Your task to perform on an android device: Go to network settings Image 0: 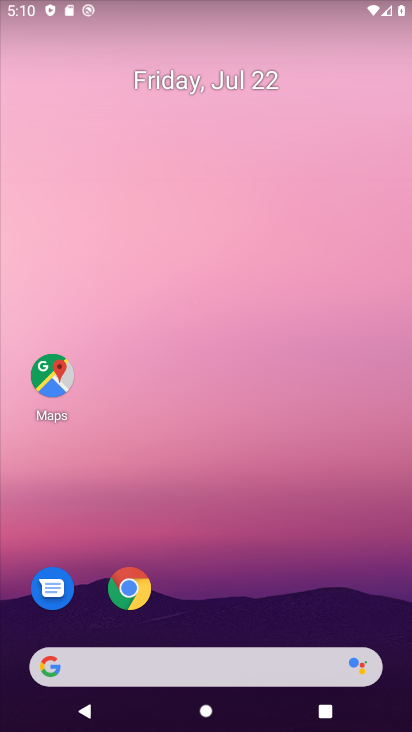
Step 0: drag from (226, 567) to (234, 265)
Your task to perform on an android device: Go to network settings Image 1: 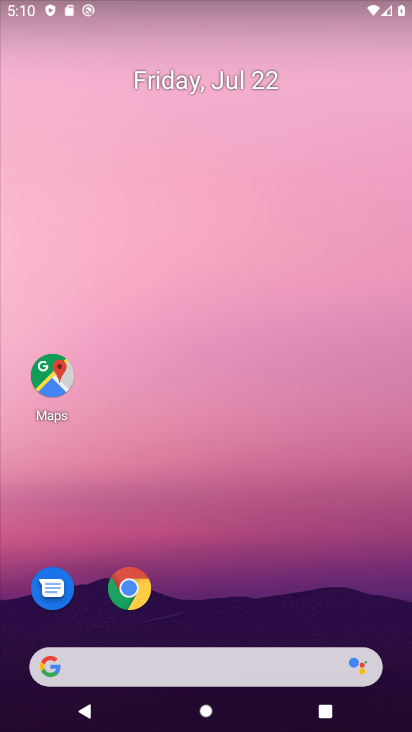
Step 1: drag from (133, 514) to (250, 46)
Your task to perform on an android device: Go to network settings Image 2: 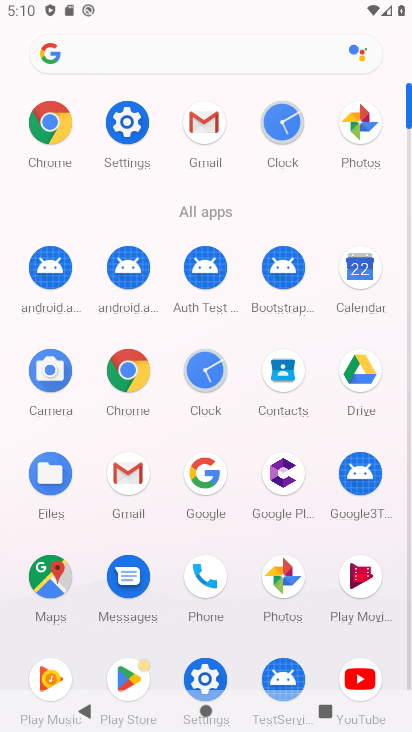
Step 2: click (123, 134)
Your task to perform on an android device: Go to network settings Image 3: 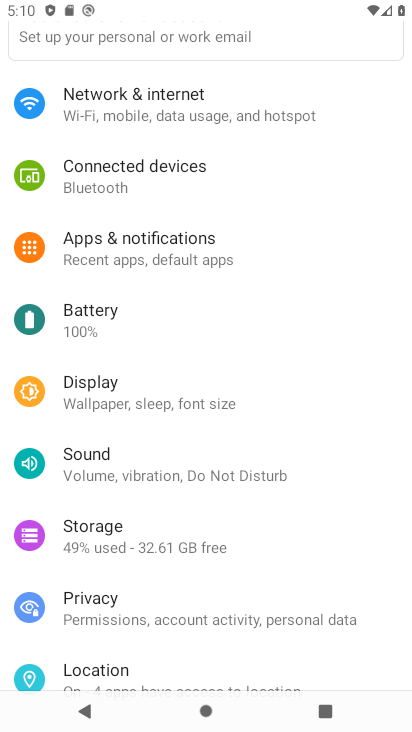
Step 3: click (153, 105)
Your task to perform on an android device: Go to network settings Image 4: 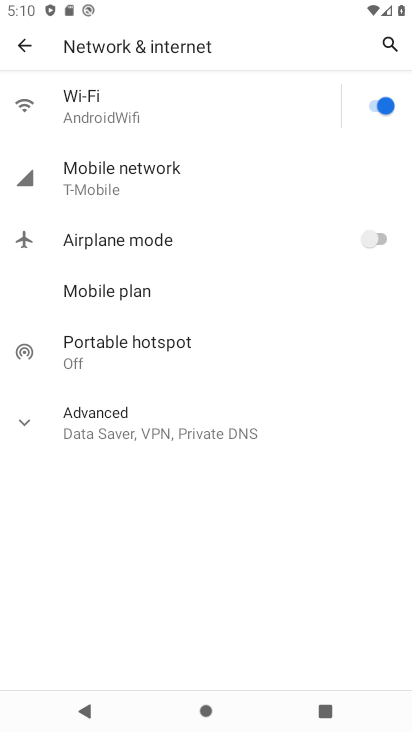
Step 4: task complete